Your task to perform on an android device: Open Maps and search for coffee Image 0: 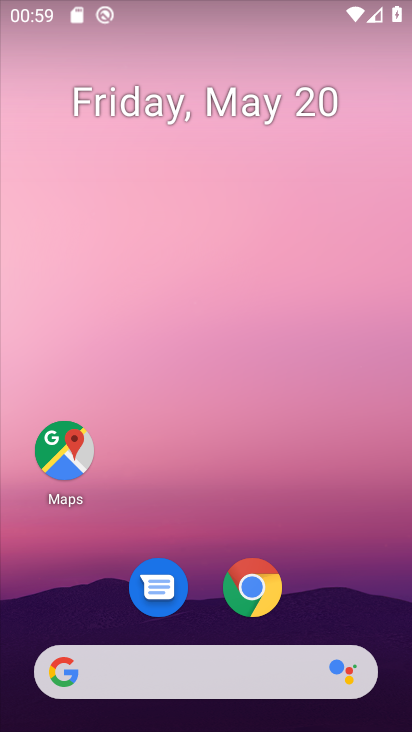
Step 0: drag from (388, 621) to (399, 196)
Your task to perform on an android device: Open Maps and search for coffee Image 1: 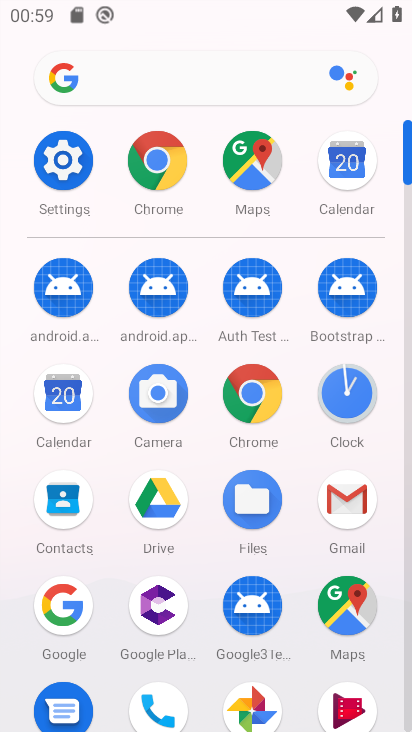
Step 1: click (345, 604)
Your task to perform on an android device: Open Maps and search for coffee Image 2: 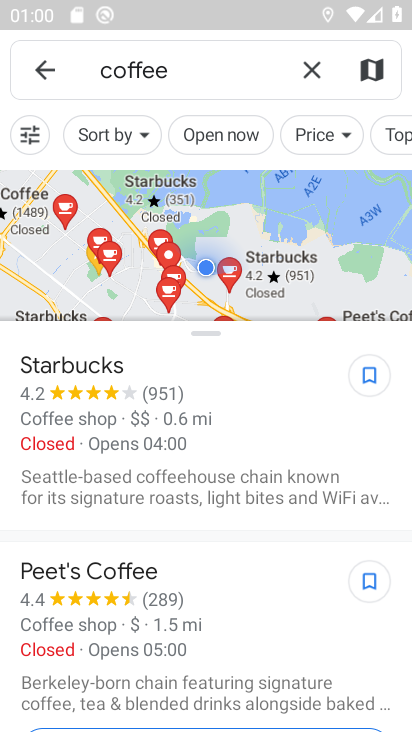
Step 2: task complete